Your task to perform on an android device: Add "acer predator" to the cart on costco, then select checkout. Image 0: 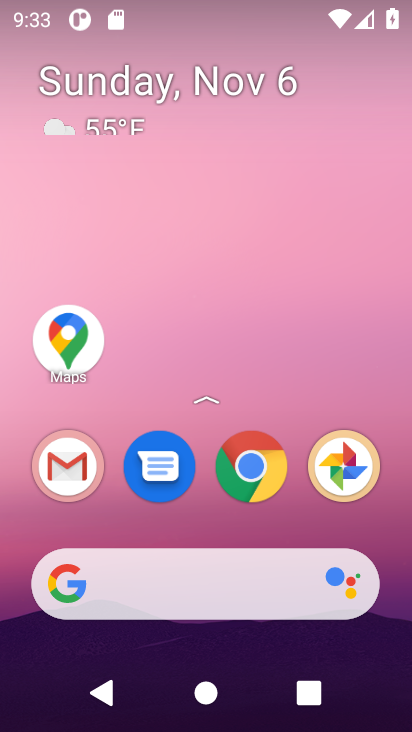
Step 0: click (243, 473)
Your task to perform on an android device: Add "acer predator" to the cart on costco, then select checkout. Image 1: 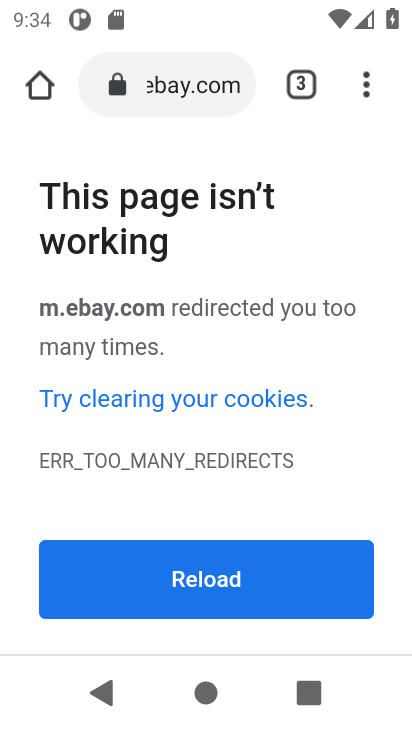
Step 1: click (299, 80)
Your task to perform on an android device: Add "acer predator" to the cart on costco, then select checkout. Image 2: 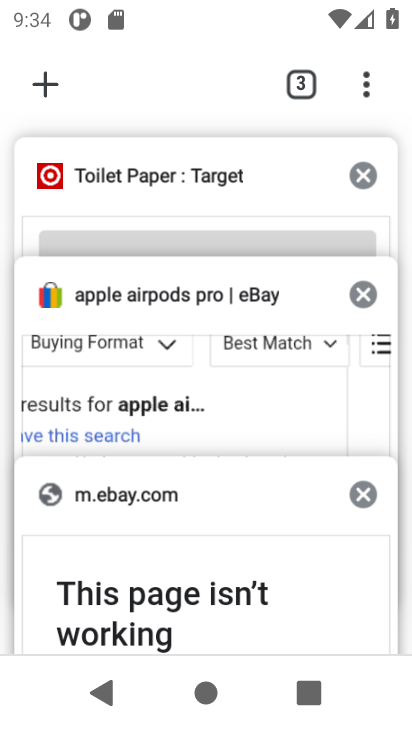
Step 2: click (48, 76)
Your task to perform on an android device: Add "acer predator" to the cart on costco, then select checkout. Image 3: 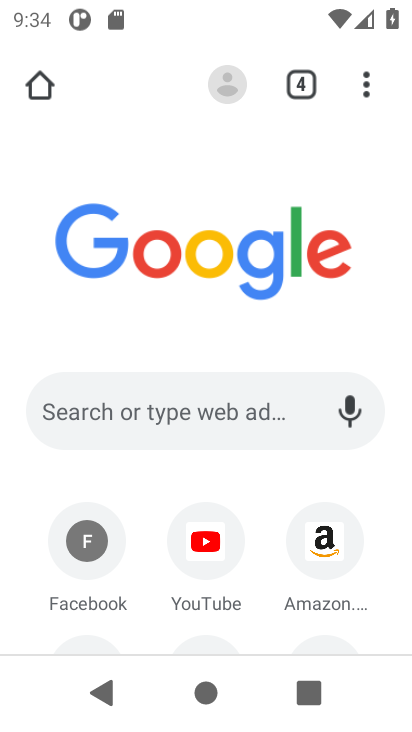
Step 3: click (231, 414)
Your task to perform on an android device: Add "acer predator" to the cart on costco, then select checkout. Image 4: 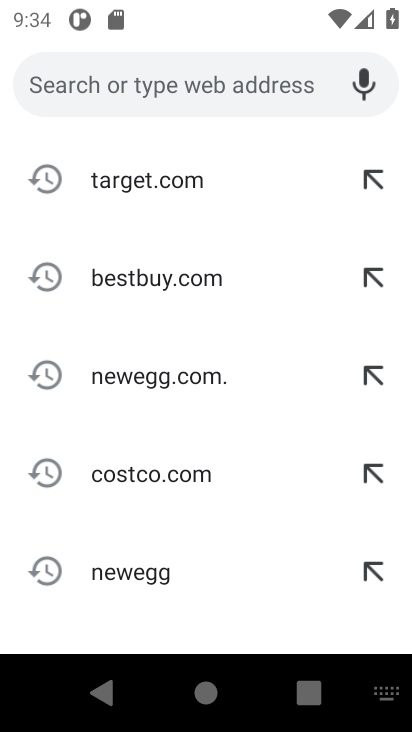
Step 4: click (89, 62)
Your task to perform on an android device: Add "acer predator" to the cart on costco, then select checkout. Image 5: 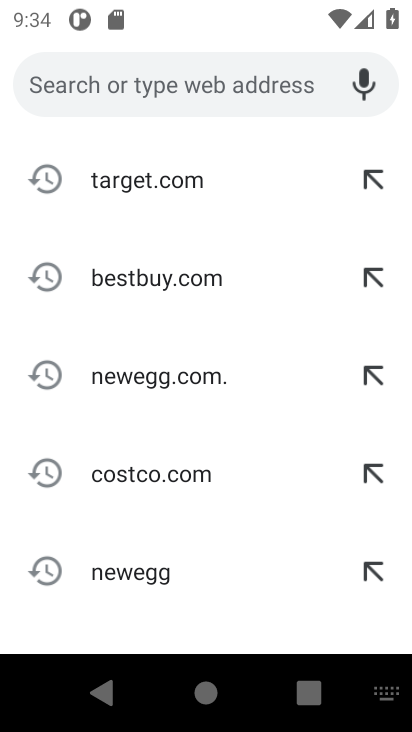
Step 5: type "acer preadtor"
Your task to perform on an android device: Add "acer predator" to the cart on costco, then select checkout. Image 6: 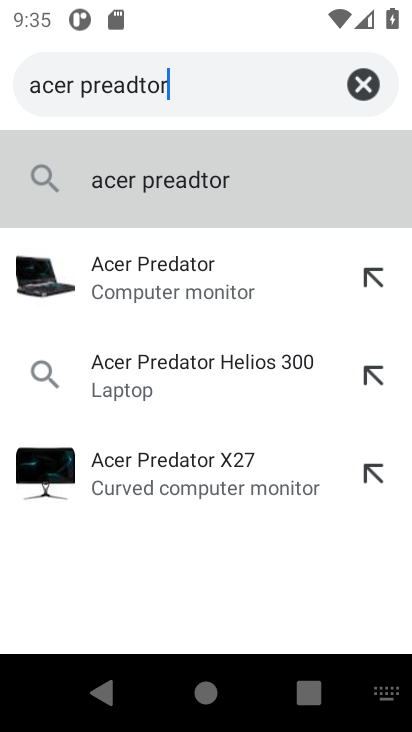
Step 6: click (198, 182)
Your task to perform on an android device: Add "acer predator" to the cart on costco, then select checkout. Image 7: 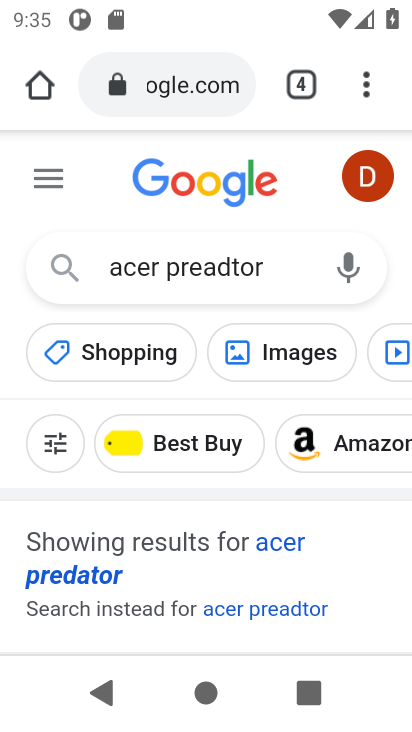
Step 7: drag from (251, 234) to (232, 143)
Your task to perform on an android device: Add "acer predator" to the cart on costco, then select checkout. Image 8: 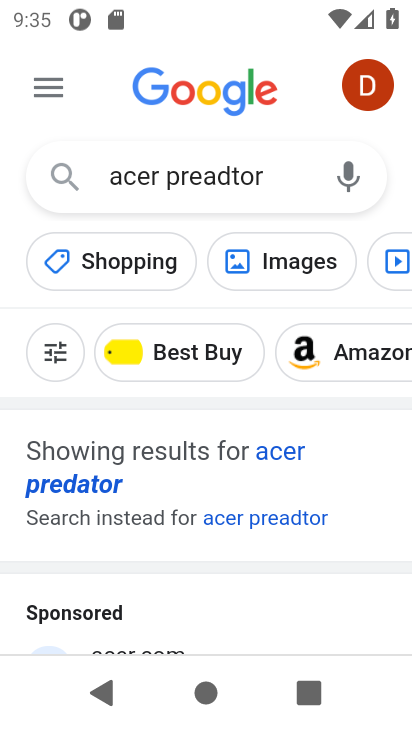
Step 8: drag from (175, 572) to (238, 110)
Your task to perform on an android device: Add "acer predator" to the cart on costco, then select checkout. Image 9: 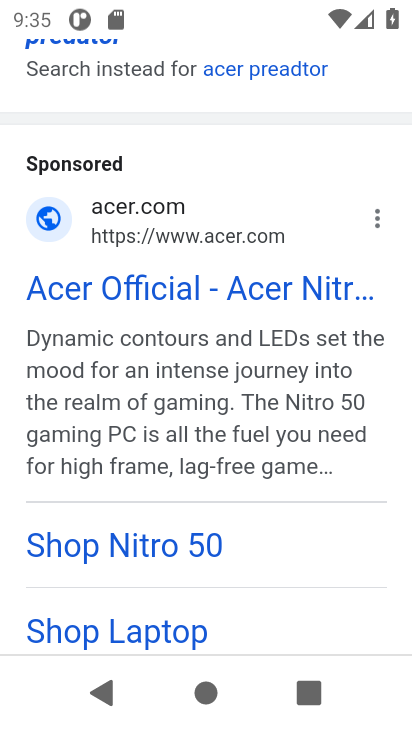
Step 9: drag from (240, 256) to (214, 727)
Your task to perform on an android device: Add "acer predator" to the cart on costco, then select checkout. Image 10: 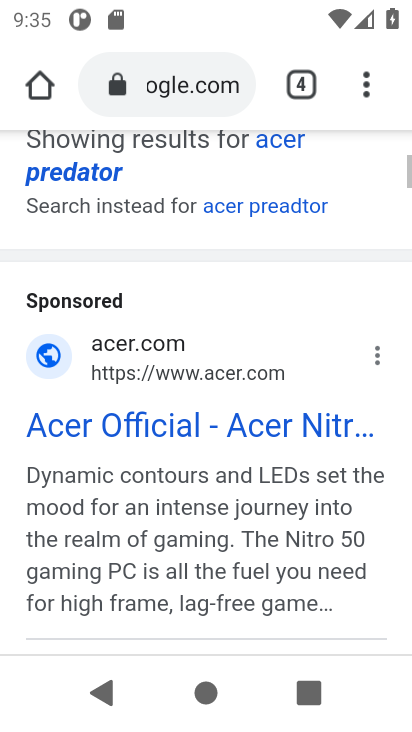
Step 10: click (309, 85)
Your task to perform on an android device: Add "acer predator" to the cart on costco, then select checkout. Image 11: 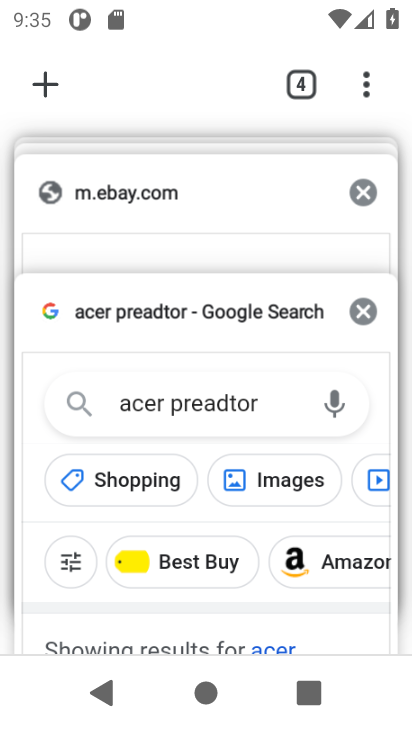
Step 11: click (47, 75)
Your task to perform on an android device: Add "acer predator" to the cart on costco, then select checkout. Image 12: 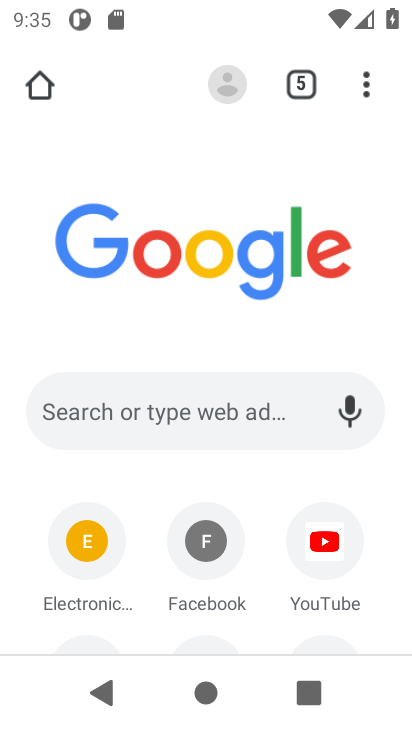
Step 12: click (130, 407)
Your task to perform on an android device: Add "acer predator" to the cart on costco, then select checkout. Image 13: 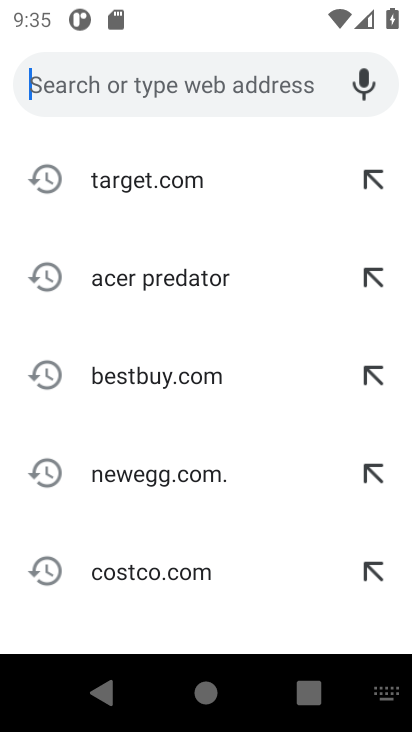
Step 13: click (150, 582)
Your task to perform on an android device: Add "acer predator" to the cart on costco, then select checkout. Image 14: 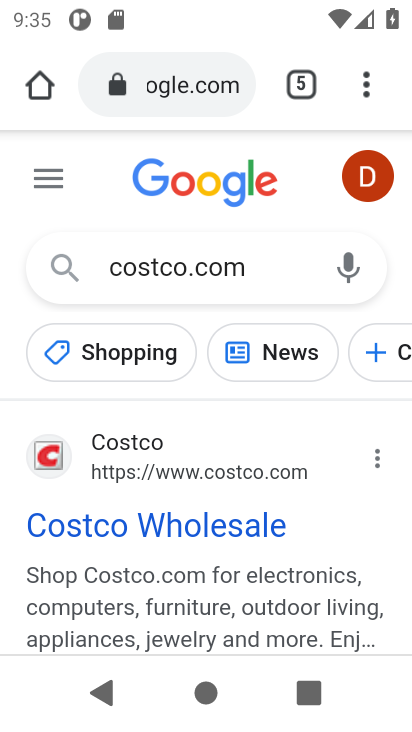
Step 14: click (183, 537)
Your task to perform on an android device: Add "acer predator" to the cart on costco, then select checkout. Image 15: 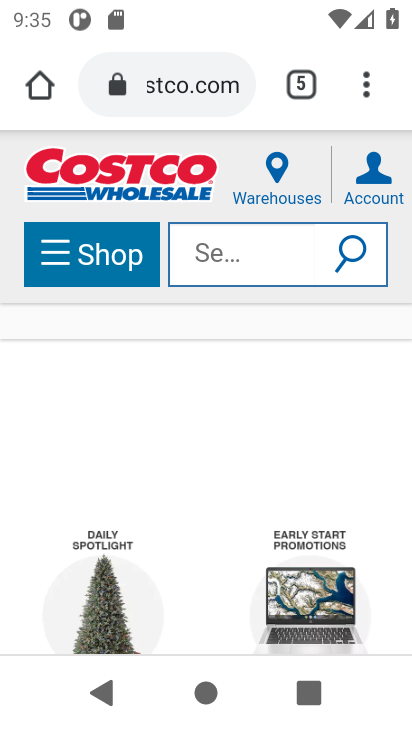
Step 15: task complete